Your task to perform on an android device: Search for macbook pro on target, select the first entry, and add it to the cart. Image 0: 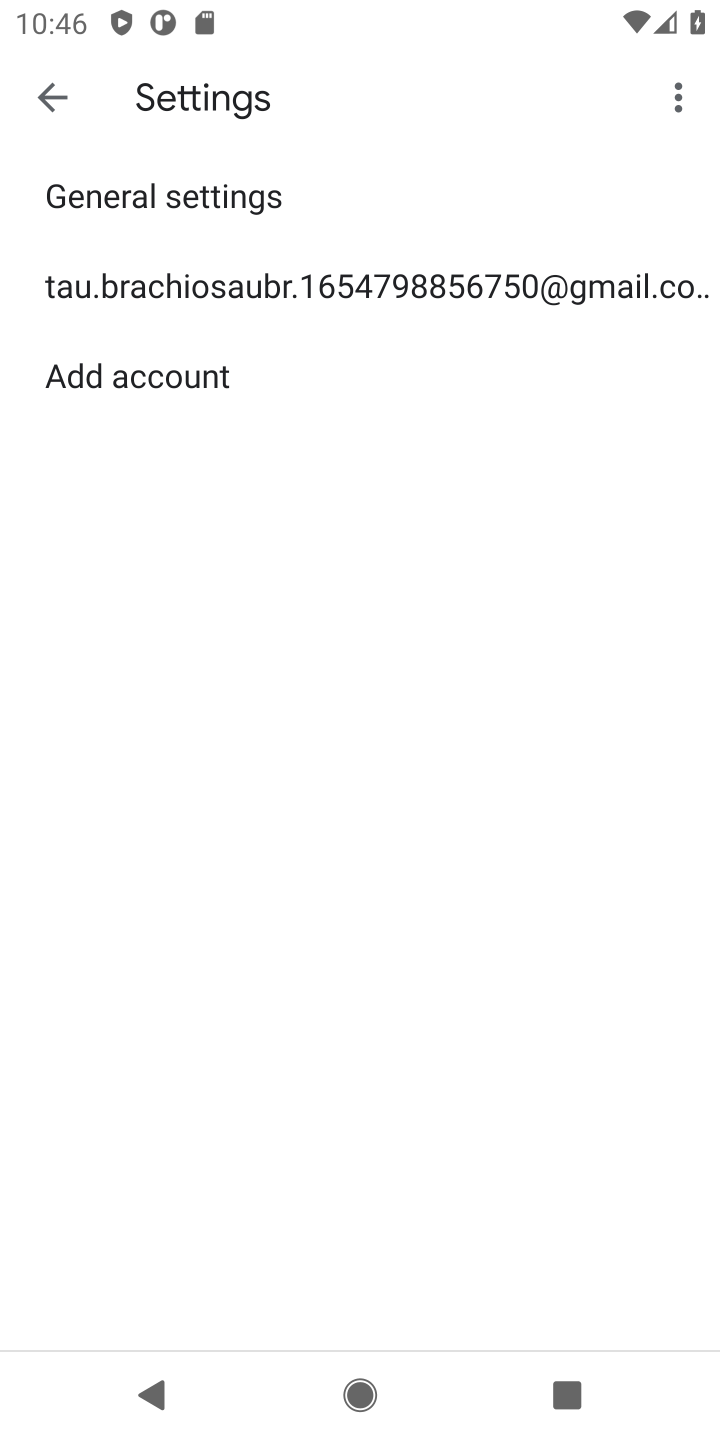
Step 0: press home button
Your task to perform on an android device: Search for macbook pro on target, select the first entry, and add it to the cart. Image 1: 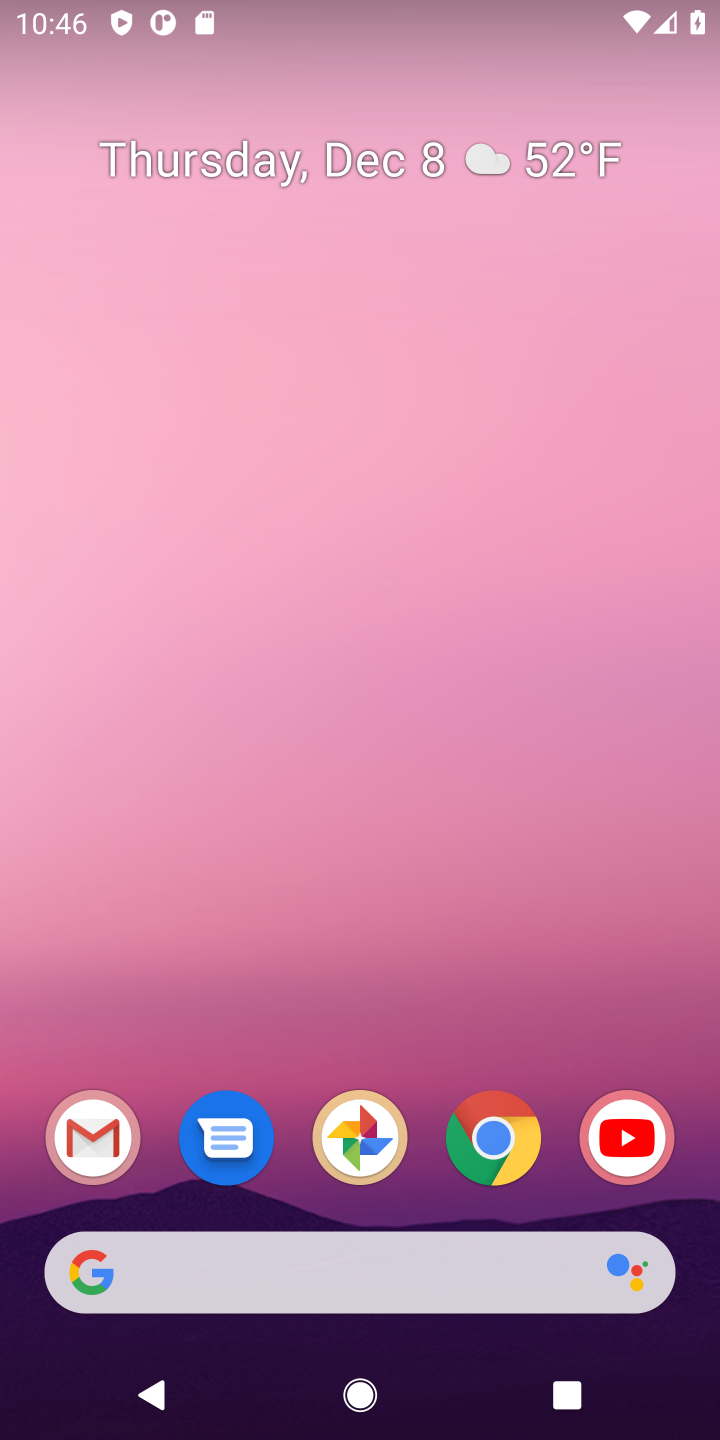
Step 1: click (475, 1139)
Your task to perform on an android device: Search for macbook pro on target, select the first entry, and add it to the cart. Image 2: 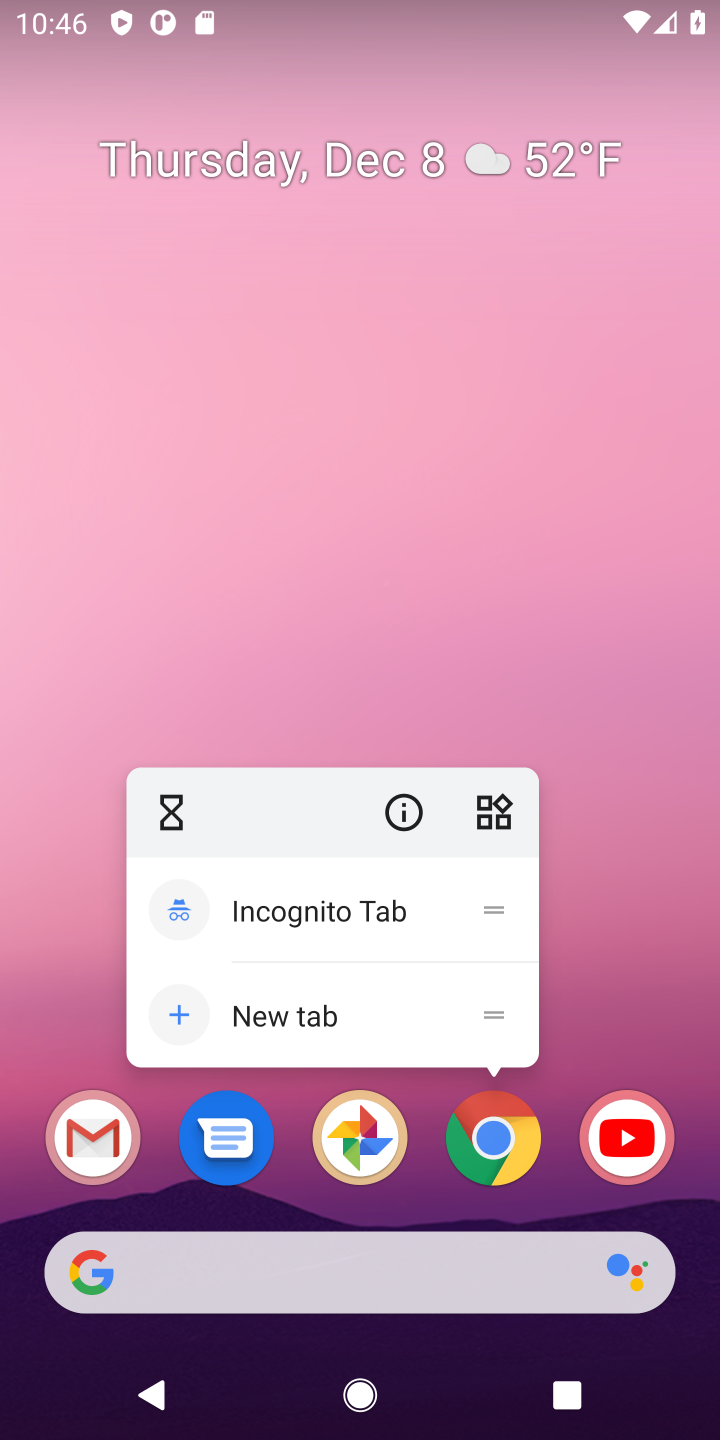
Step 2: click (475, 1139)
Your task to perform on an android device: Search for macbook pro on target, select the first entry, and add it to the cart. Image 3: 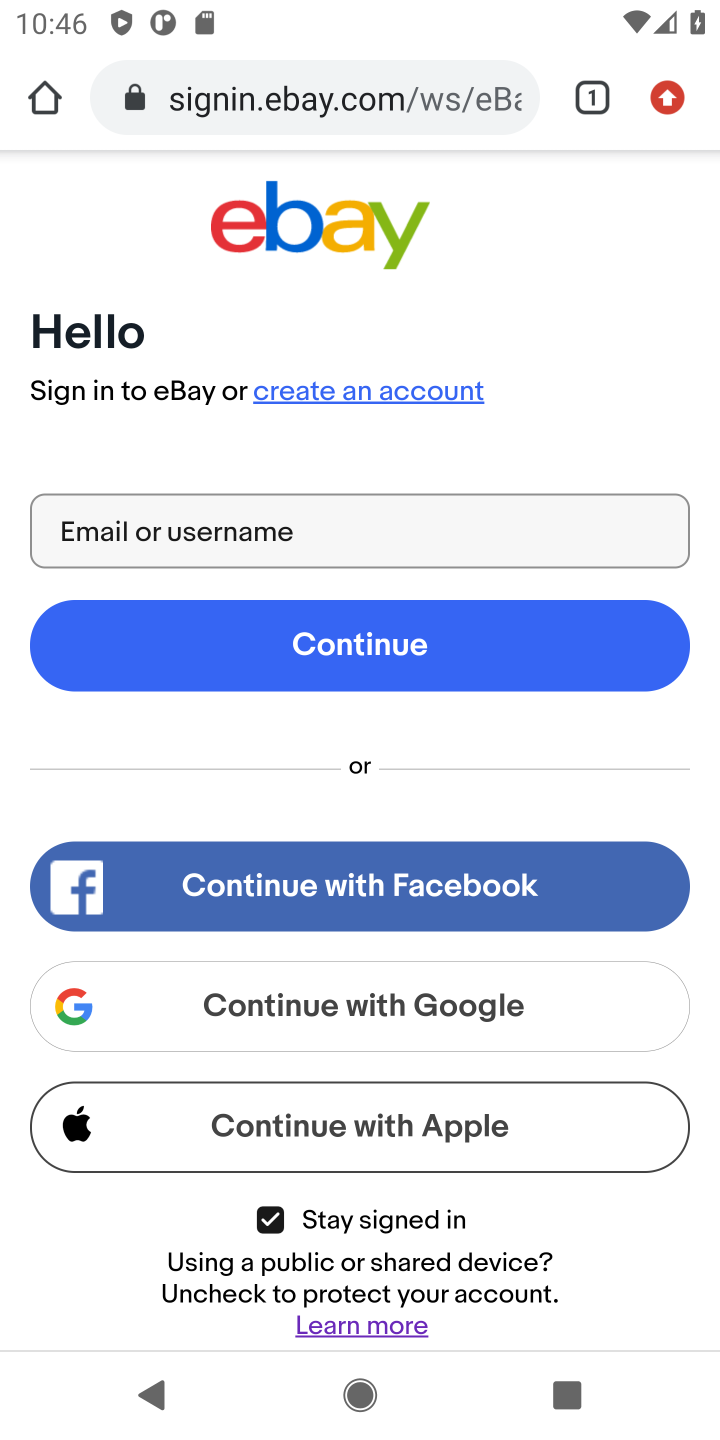
Step 3: click (426, 95)
Your task to perform on an android device: Search for macbook pro on target, select the first entry, and add it to the cart. Image 4: 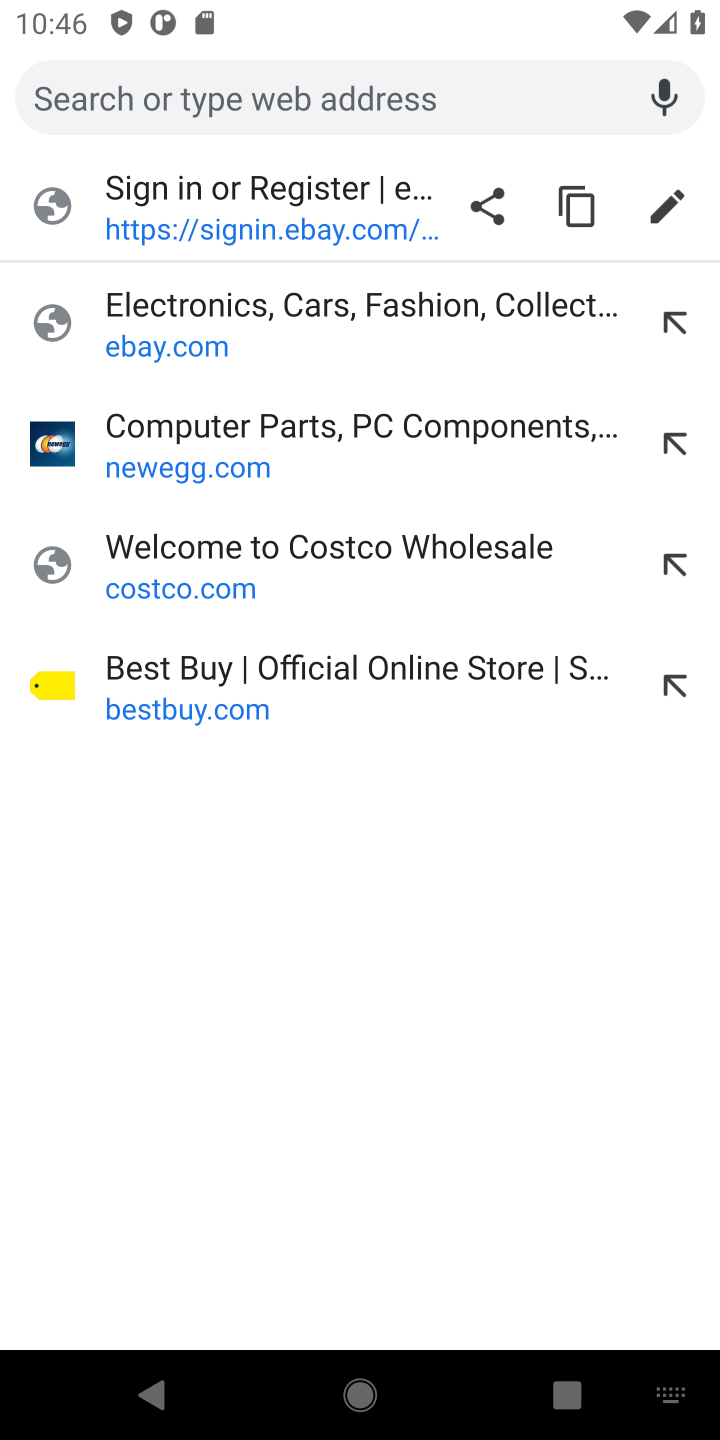
Step 4: type "target"
Your task to perform on an android device: Search for macbook pro on target, select the first entry, and add it to the cart. Image 5: 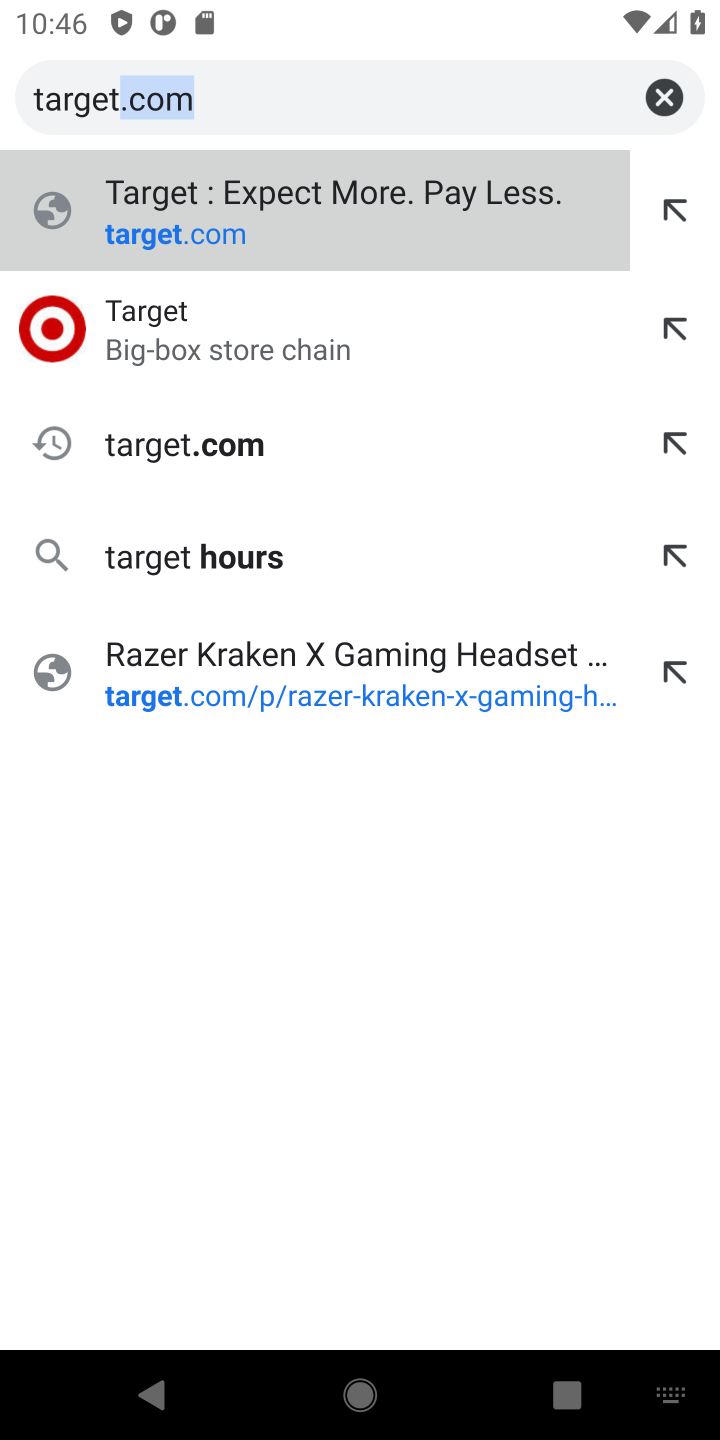
Step 5: click (213, 446)
Your task to perform on an android device: Search for macbook pro on target, select the first entry, and add it to the cart. Image 6: 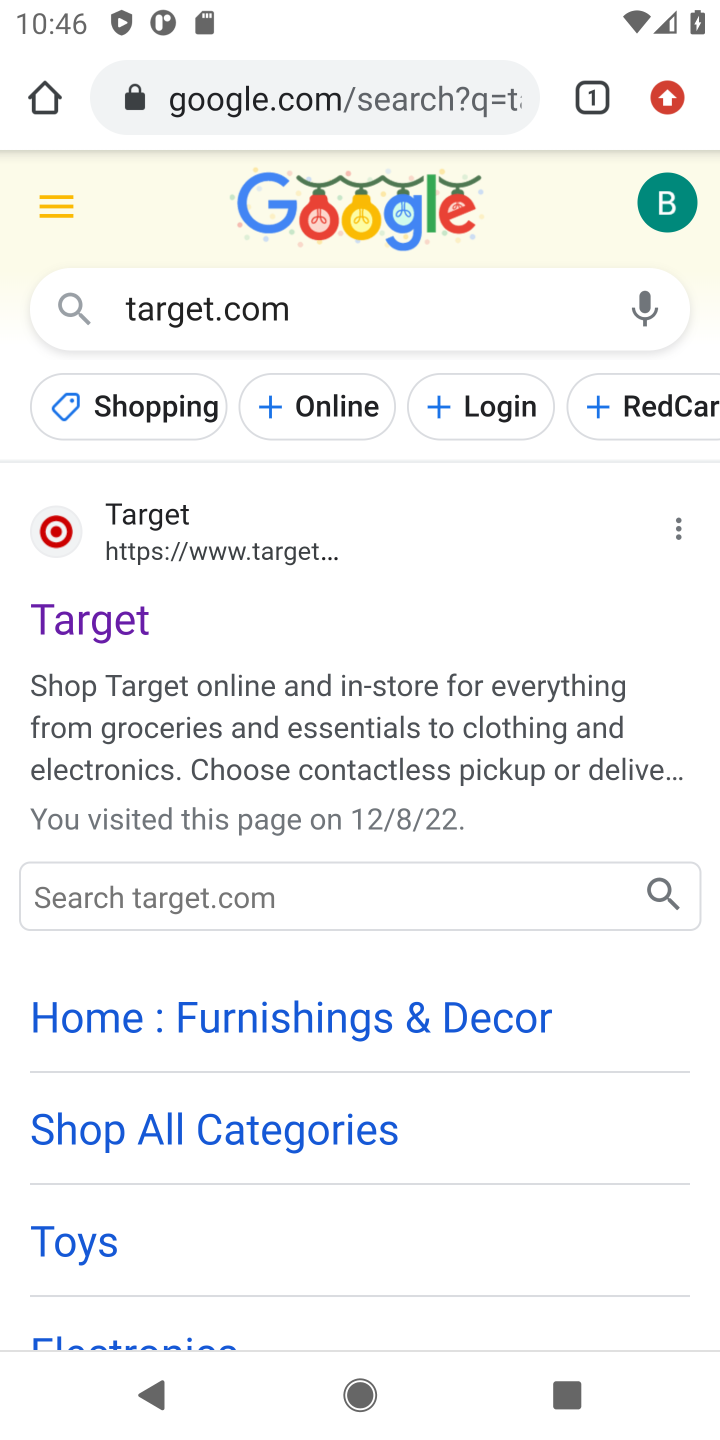
Step 6: click (281, 550)
Your task to perform on an android device: Search for macbook pro on target, select the first entry, and add it to the cart. Image 7: 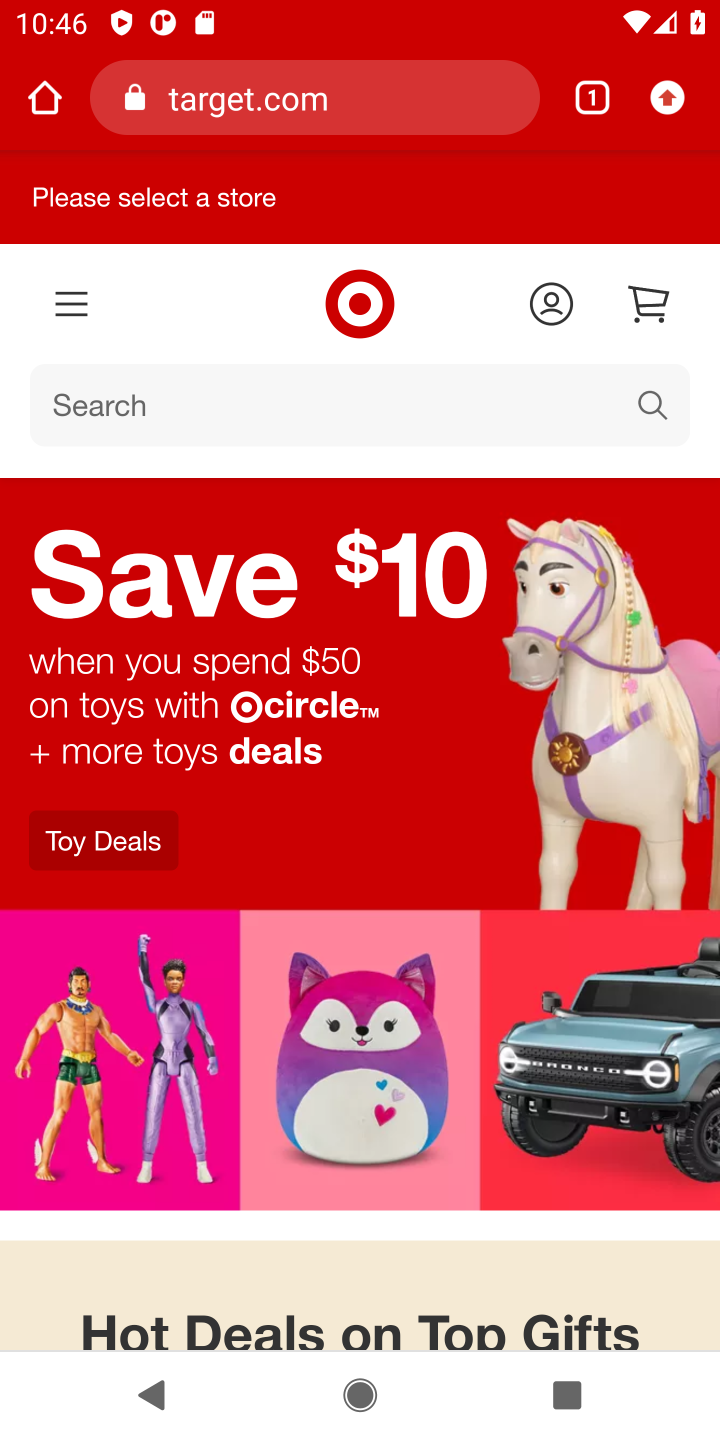
Step 7: click (646, 407)
Your task to perform on an android device: Search for macbook pro on target, select the first entry, and add it to the cart. Image 8: 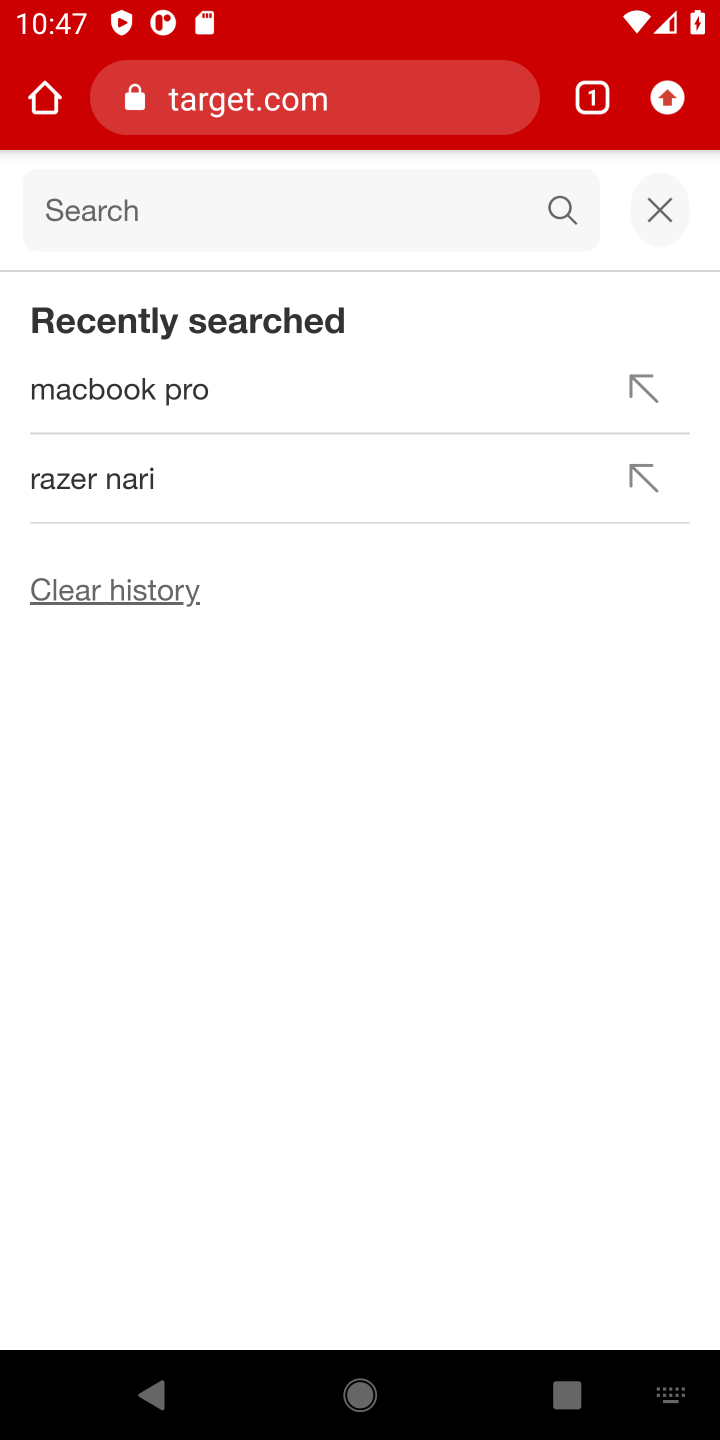
Step 8: type "macbook pro"
Your task to perform on an android device: Search for macbook pro on target, select the first entry, and add it to the cart. Image 9: 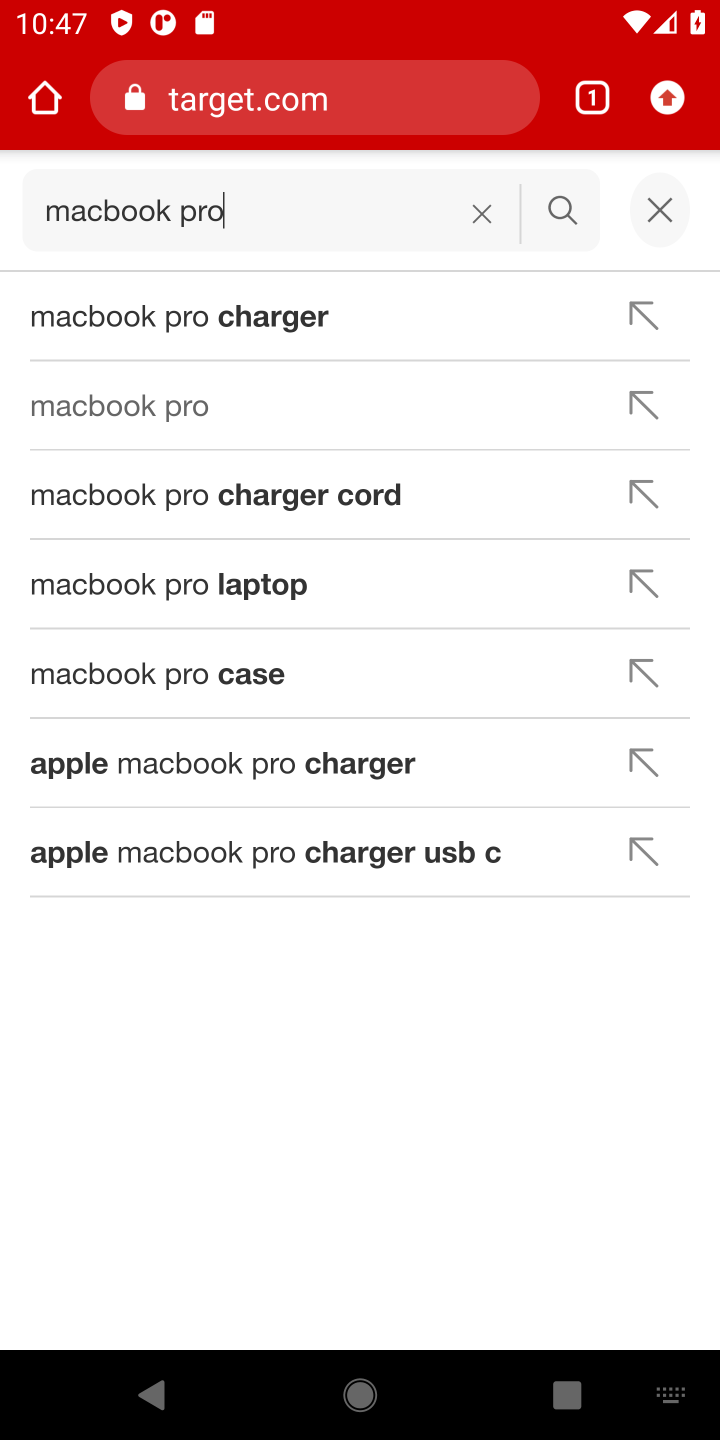
Step 9: press enter
Your task to perform on an android device: Search for macbook pro on target, select the first entry, and add it to the cart. Image 10: 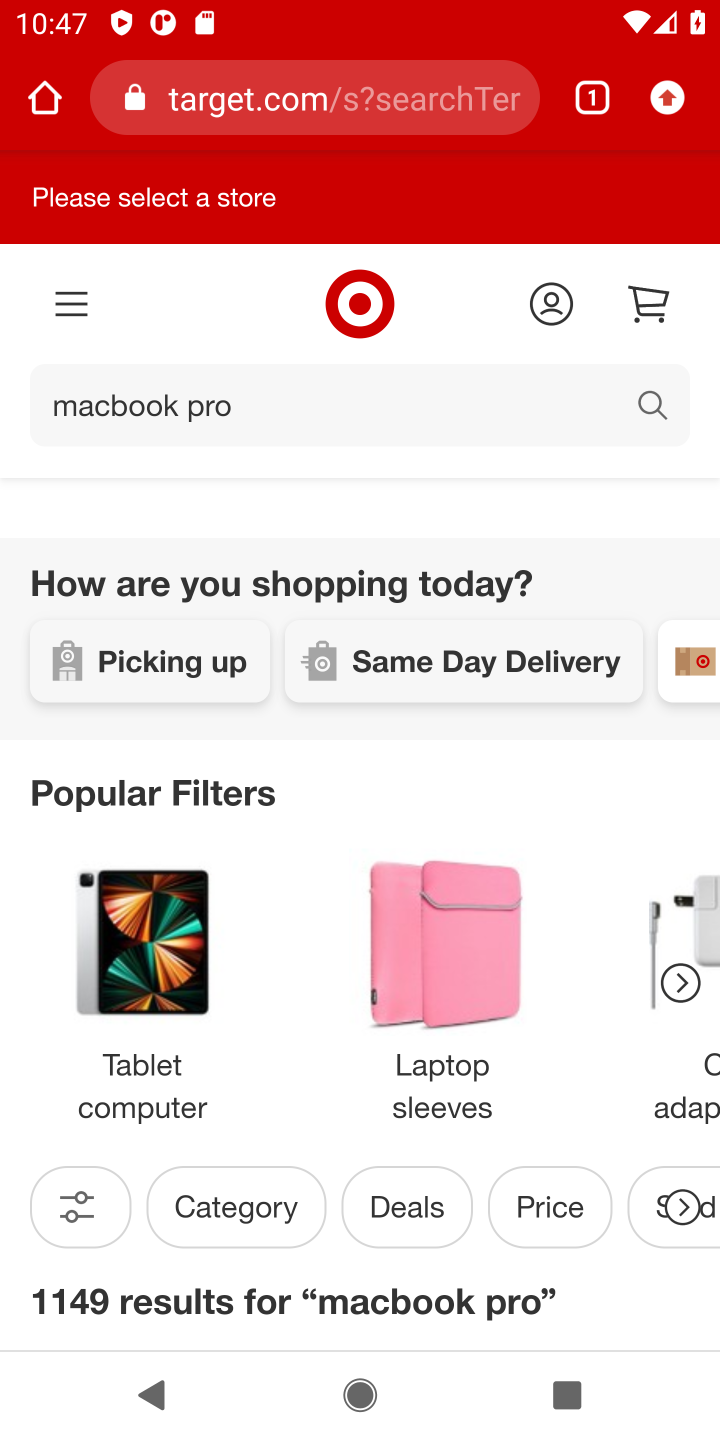
Step 10: task complete